Your task to perform on an android device: Go to CNN.com Image 0: 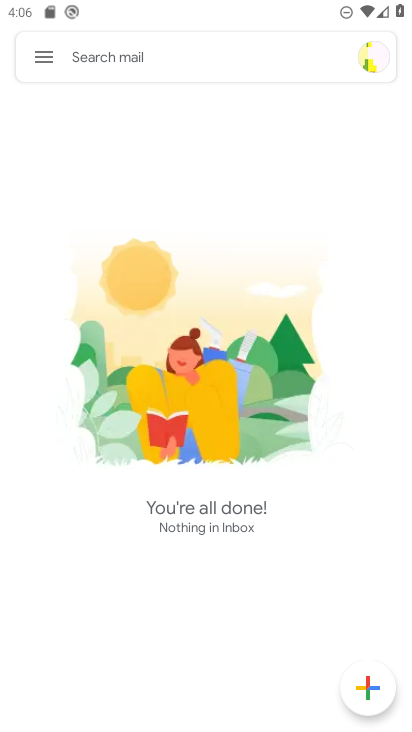
Step 0: press home button
Your task to perform on an android device: Go to CNN.com Image 1: 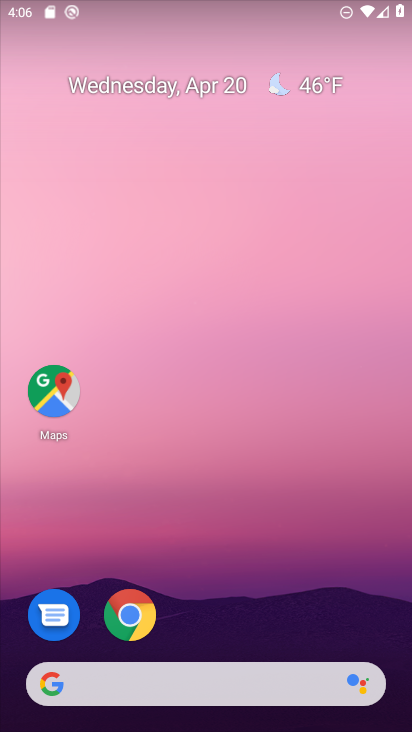
Step 1: drag from (261, 515) to (331, 114)
Your task to perform on an android device: Go to CNN.com Image 2: 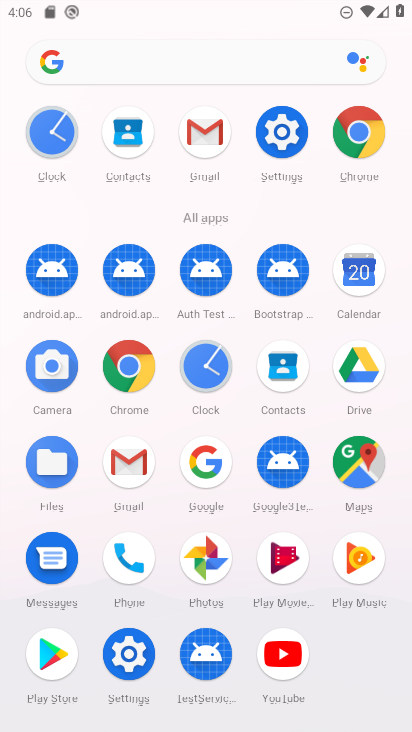
Step 2: click (377, 142)
Your task to perform on an android device: Go to CNN.com Image 3: 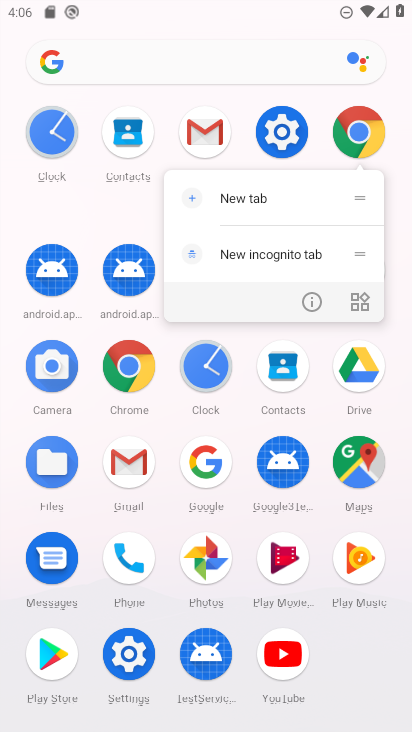
Step 3: click (377, 141)
Your task to perform on an android device: Go to CNN.com Image 4: 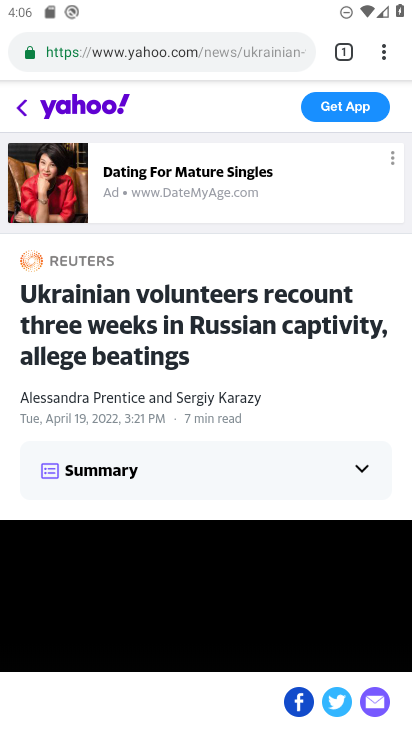
Step 4: click (268, 46)
Your task to perform on an android device: Go to CNN.com Image 5: 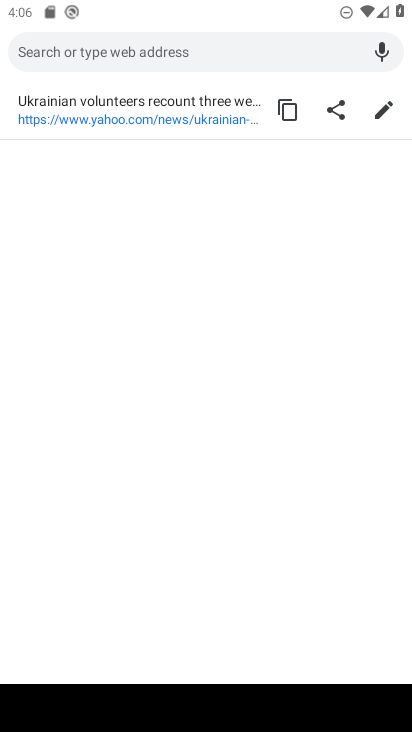
Step 5: type "cnn.com"
Your task to perform on an android device: Go to CNN.com Image 6: 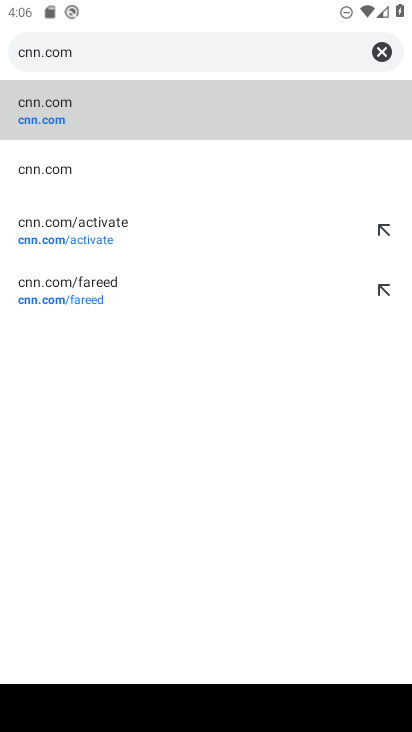
Step 6: click (78, 115)
Your task to perform on an android device: Go to CNN.com Image 7: 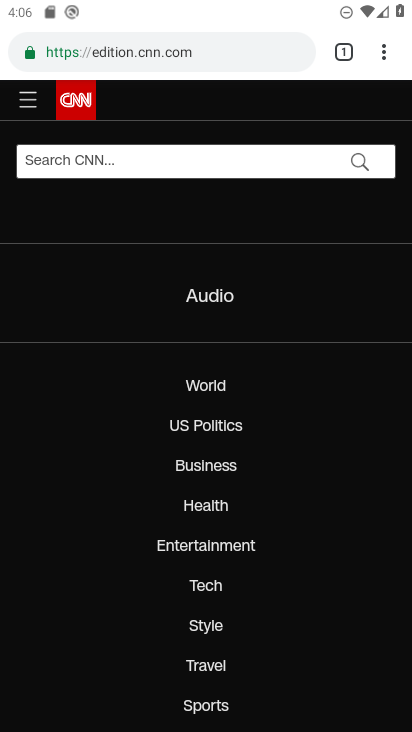
Step 7: task complete